Your task to perform on an android device: Show the shopping cart on ebay. Search for "macbook pro" on ebay, select the first entry, and add it to the cart. Image 0: 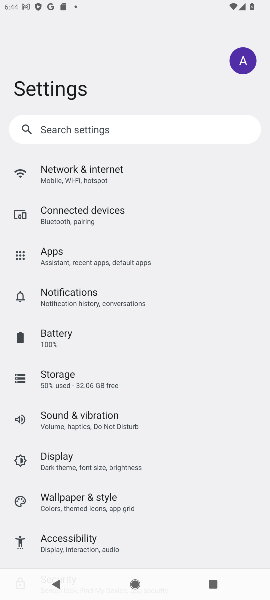
Step 0: press home button
Your task to perform on an android device: Show the shopping cart on ebay. Search for "macbook pro" on ebay, select the first entry, and add it to the cart. Image 1: 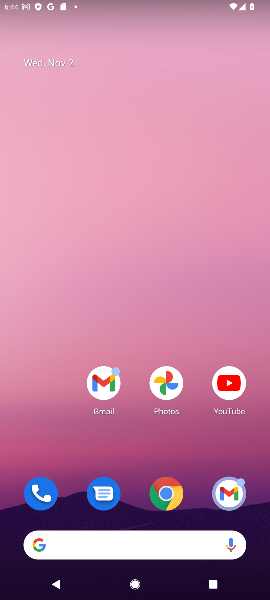
Step 1: drag from (107, 507) to (122, 306)
Your task to perform on an android device: Show the shopping cart on ebay. Search for "macbook pro" on ebay, select the first entry, and add it to the cart. Image 2: 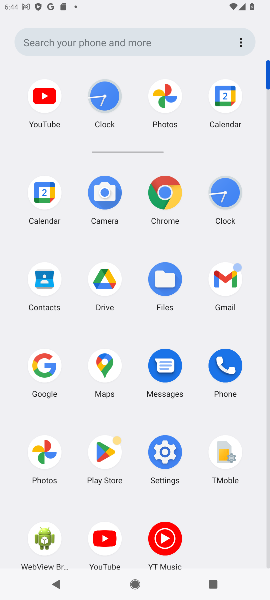
Step 2: click (42, 352)
Your task to perform on an android device: Show the shopping cart on ebay. Search for "macbook pro" on ebay, select the first entry, and add it to the cart. Image 3: 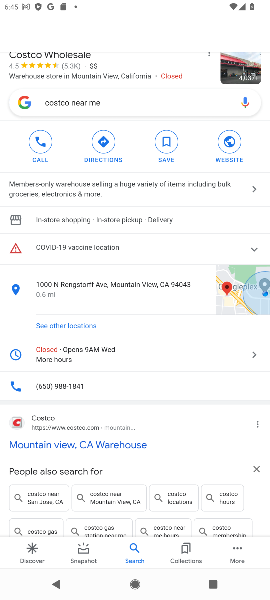
Step 3: click (163, 97)
Your task to perform on an android device: Show the shopping cart on ebay. Search for "macbook pro" on ebay, select the first entry, and add it to the cart. Image 4: 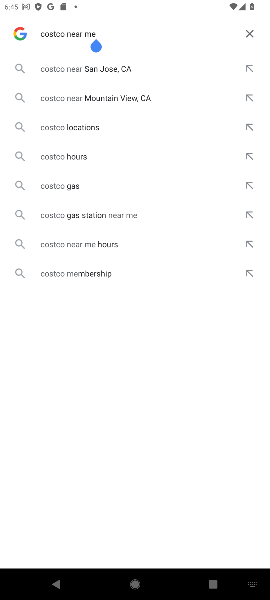
Step 4: click (251, 30)
Your task to perform on an android device: Show the shopping cart on ebay. Search for "macbook pro" on ebay, select the first entry, and add it to the cart. Image 5: 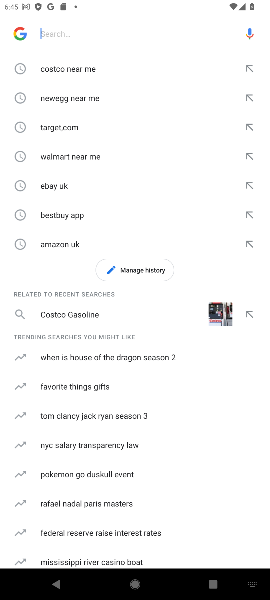
Step 5: click (85, 23)
Your task to perform on an android device: Show the shopping cart on ebay. Search for "macbook pro" on ebay, select the first entry, and add it to the cart. Image 6: 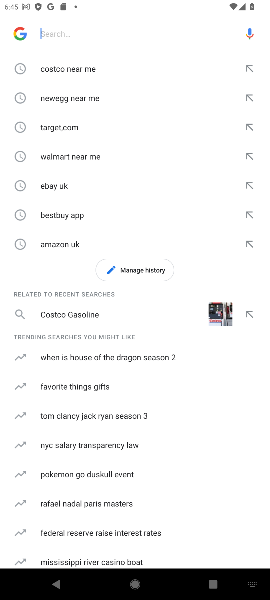
Step 6: type "ebay "
Your task to perform on an android device: Show the shopping cart on ebay. Search for "macbook pro" on ebay, select the first entry, and add it to the cart. Image 7: 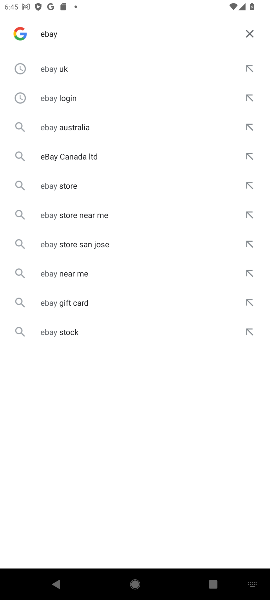
Step 7: click (55, 66)
Your task to perform on an android device: Show the shopping cart on ebay. Search for "macbook pro" on ebay, select the first entry, and add it to the cart. Image 8: 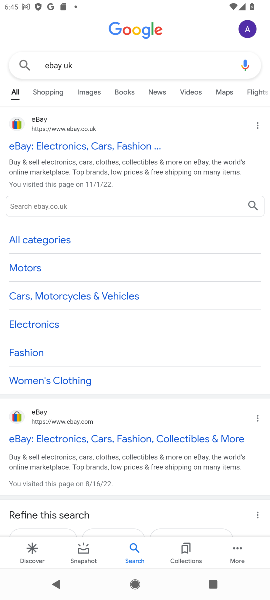
Step 8: click (24, 148)
Your task to perform on an android device: Show the shopping cart on ebay. Search for "macbook pro" on ebay, select the first entry, and add it to the cart. Image 9: 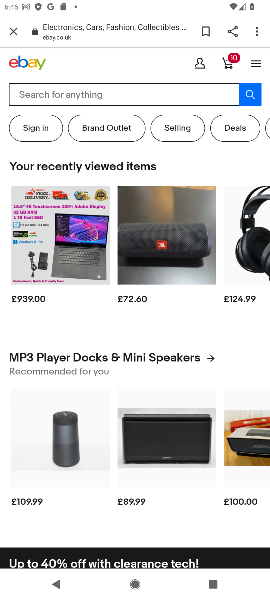
Step 9: click (164, 96)
Your task to perform on an android device: Show the shopping cart on ebay. Search for "macbook pro" on ebay, select the first entry, and add it to the cart. Image 10: 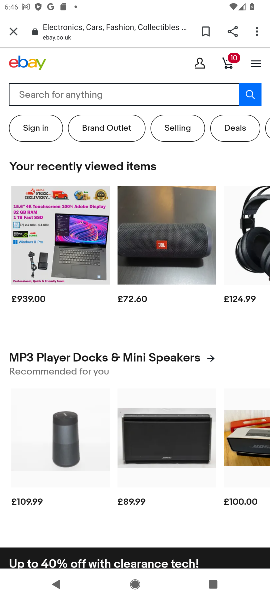
Step 10: click (164, 96)
Your task to perform on an android device: Show the shopping cart on ebay. Search for "macbook pro" on ebay, select the first entry, and add it to the cart. Image 11: 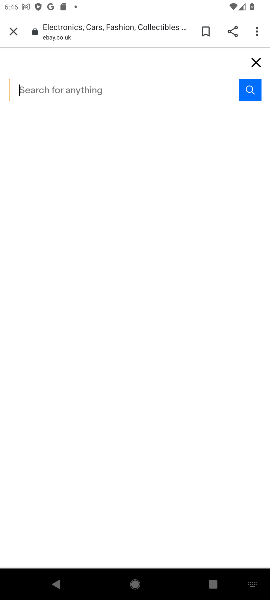
Step 11: type "macbook "
Your task to perform on an android device: Show the shopping cart on ebay. Search for "macbook pro" on ebay, select the first entry, and add it to the cart. Image 12: 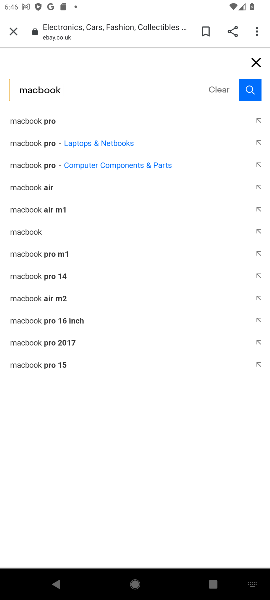
Step 12: click (38, 118)
Your task to perform on an android device: Show the shopping cart on ebay. Search for "macbook pro" on ebay, select the first entry, and add it to the cart. Image 13: 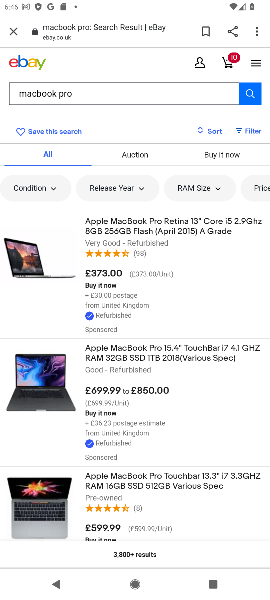
Step 13: click (111, 232)
Your task to perform on an android device: Show the shopping cart on ebay. Search for "macbook pro" on ebay, select the first entry, and add it to the cart. Image 14: 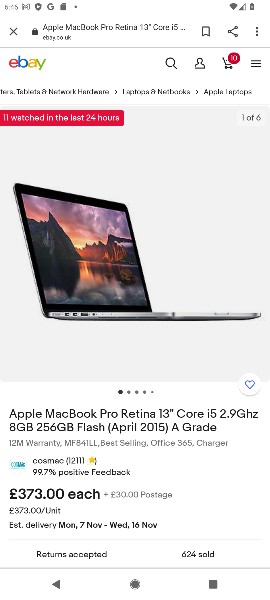
Step 14: drag from (151, 528) to (127, 260)
Your task to perform on an android device: Show the shopping cart on ebay. Search for "macbook pro" on ebay, select the first entry, and add it to the cart. Image 15: 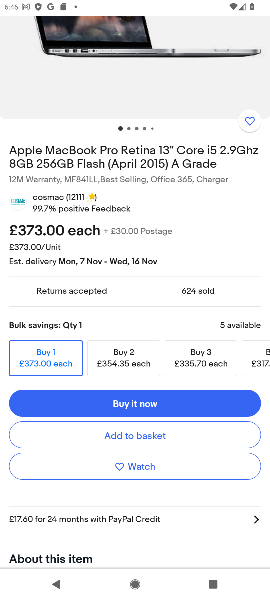
Step 15: click (163, 432)
Your task to perform on an android device: Show the shopping cart on ebay. Search for "macbook pro" on ebay, select the first entry, and add it to the cart. Image 16: 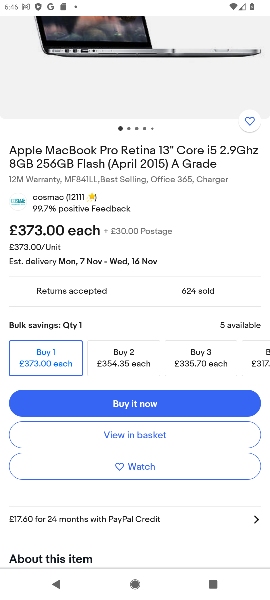
Step 16: click (147, 435)
Your task to perform on an android device: Show the shopping cart on ebay. Search for "macbook pro" on ebay, select the first entry, and add it to the cart. Image 17: 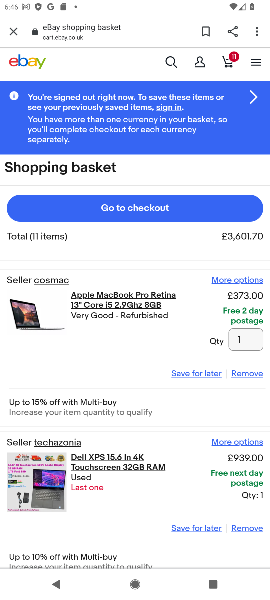
Step 17: task complete